Your task to perform on an android device: check battery use Image 0: 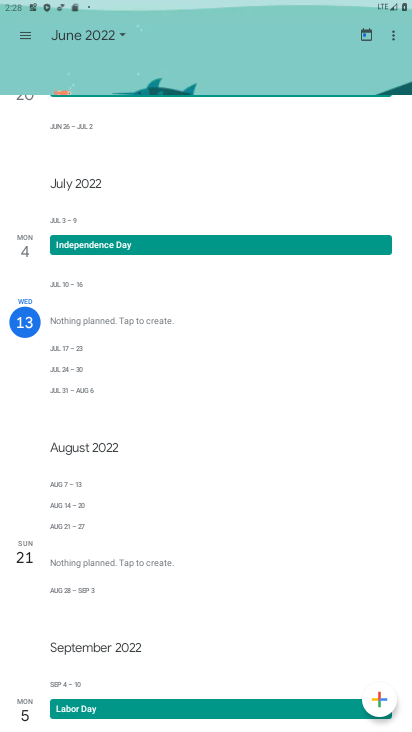
Step 0: press home button
Your task to perform on an android device: check battery use Image 1: 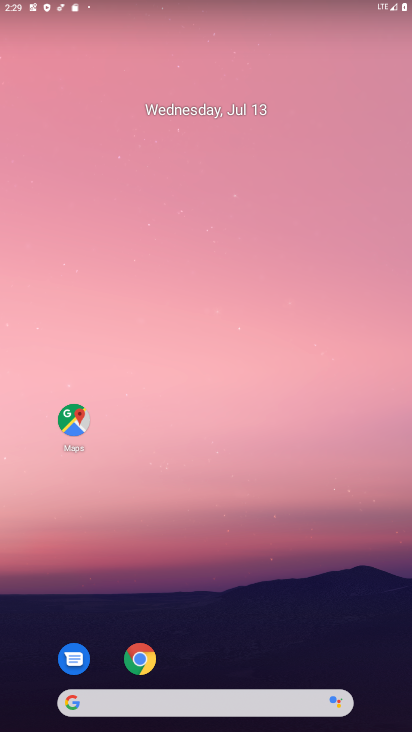
Step 1: drag from (351, 642) to (308, 71)
Your task to perform on an android device: check battery use Image 2: 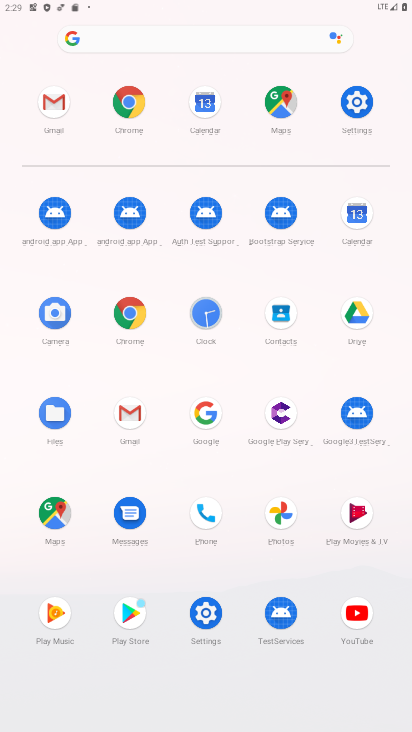
Step 2: click (205, 615)
Your task to perform on an android device: check battery use Image 3: 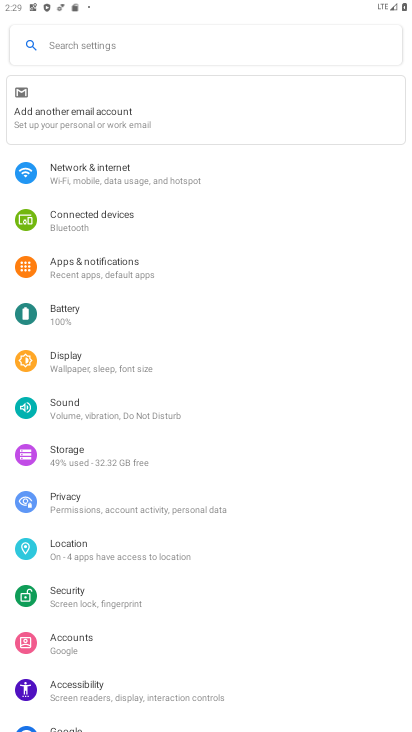
Step 3: click (62, 302)
Your task to perform on an android device: check battery use Image 4: 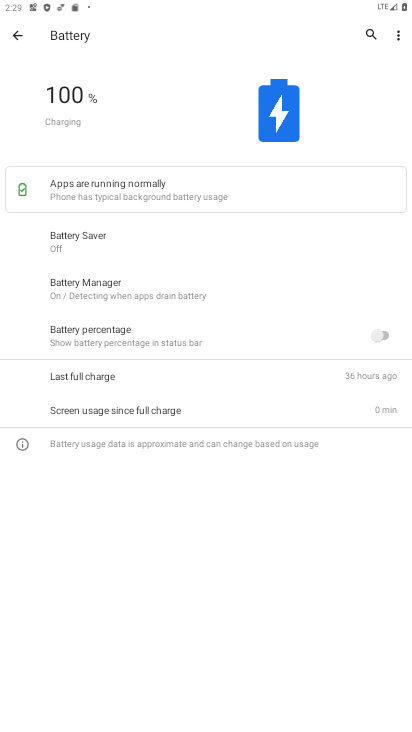
Step 4: click (398, 36)
Your task to perform on an android device: check battery use Image 5: 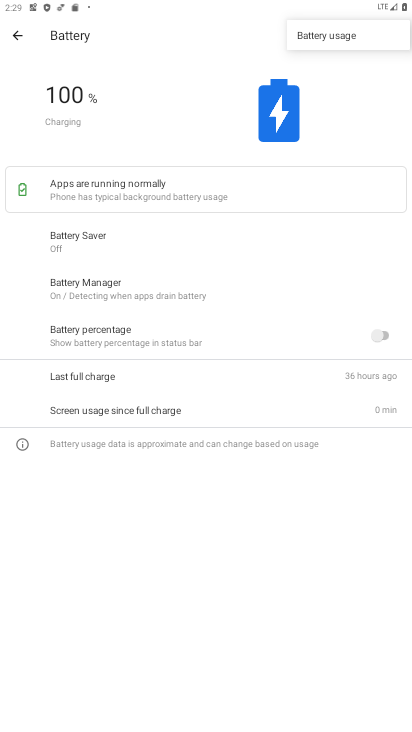
Step 5: click (331, 35)
Your task to perform on an android device: check battery use Image 6: 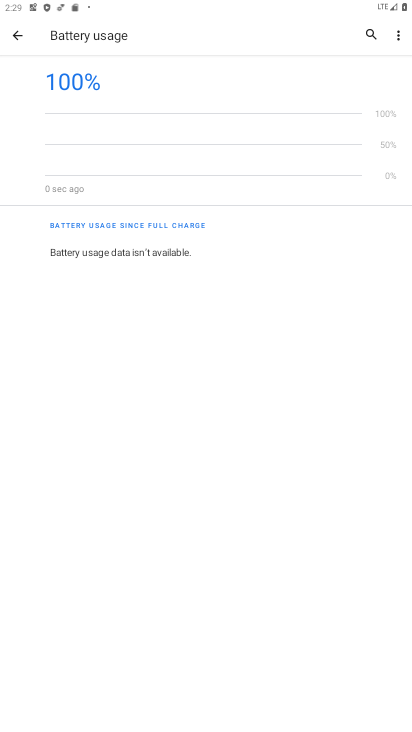
Step 6: task complete